Your task to perform on an android device: Open sound settings Image 0: 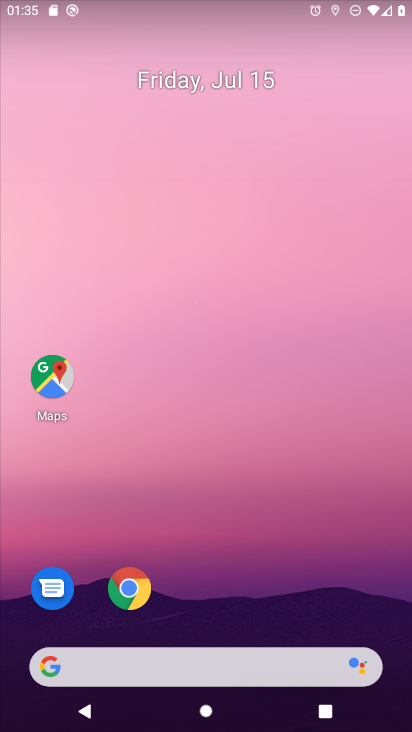
Step 0: drag from (386, 619) to (353, 107)
Your task to perform on an android device: Open sound settings Image 1: 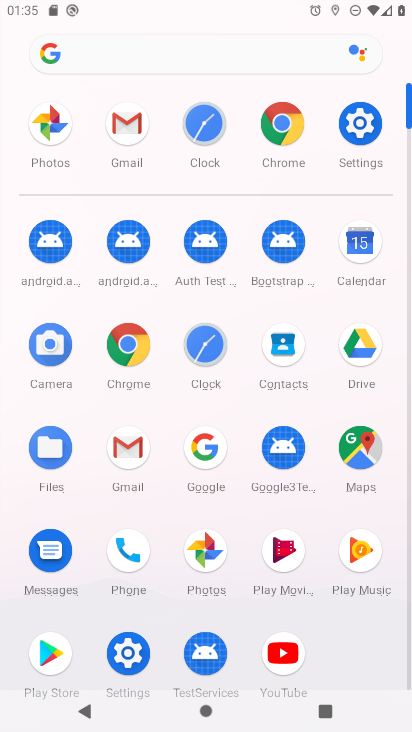
Step 1: click (124, 656)
Your task to perform on an android device: Open sound settings Image 2: 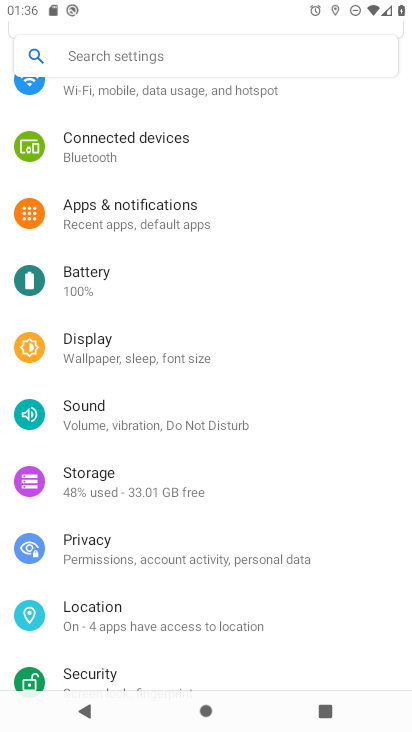
Step 2: click (77, 409)
Your task to perform on an android device: Open sound settings Image 3: 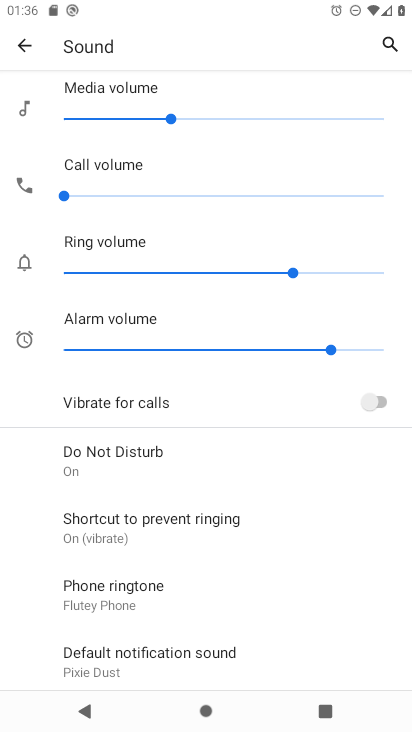
Step 3: drag from (284, 629) to (279, 160)
Your task to perform on an android device: Open sound settings Image 4: 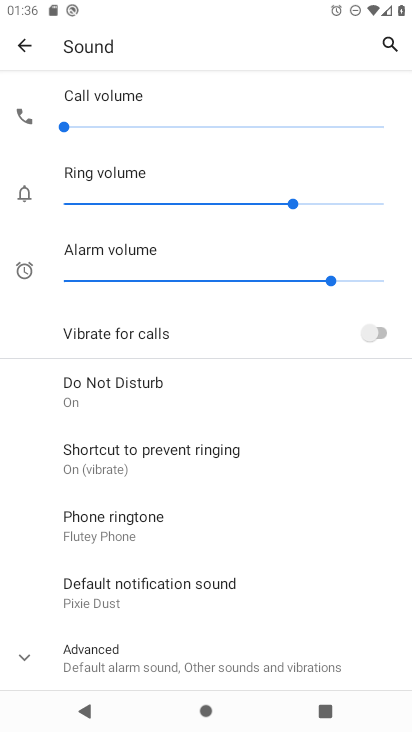
Step 4: click (22, 661)
Your task to perform on an android device: Open sound settings Image 5: 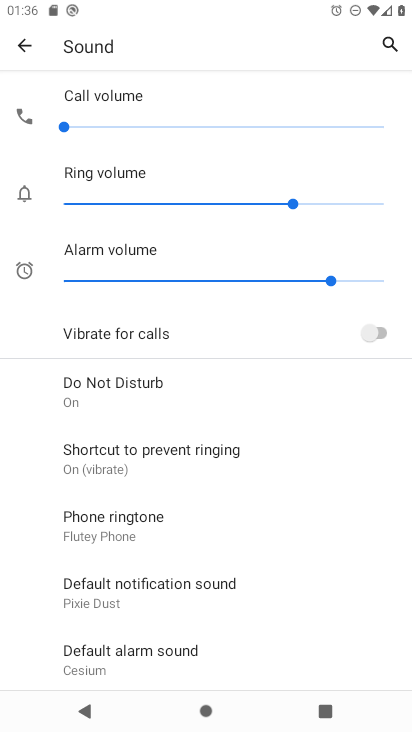
Step 5: task complete